Your task to perform on an android device: open app "HBO Max: Stream TV & Movies" (install if not already installed) Image 0: 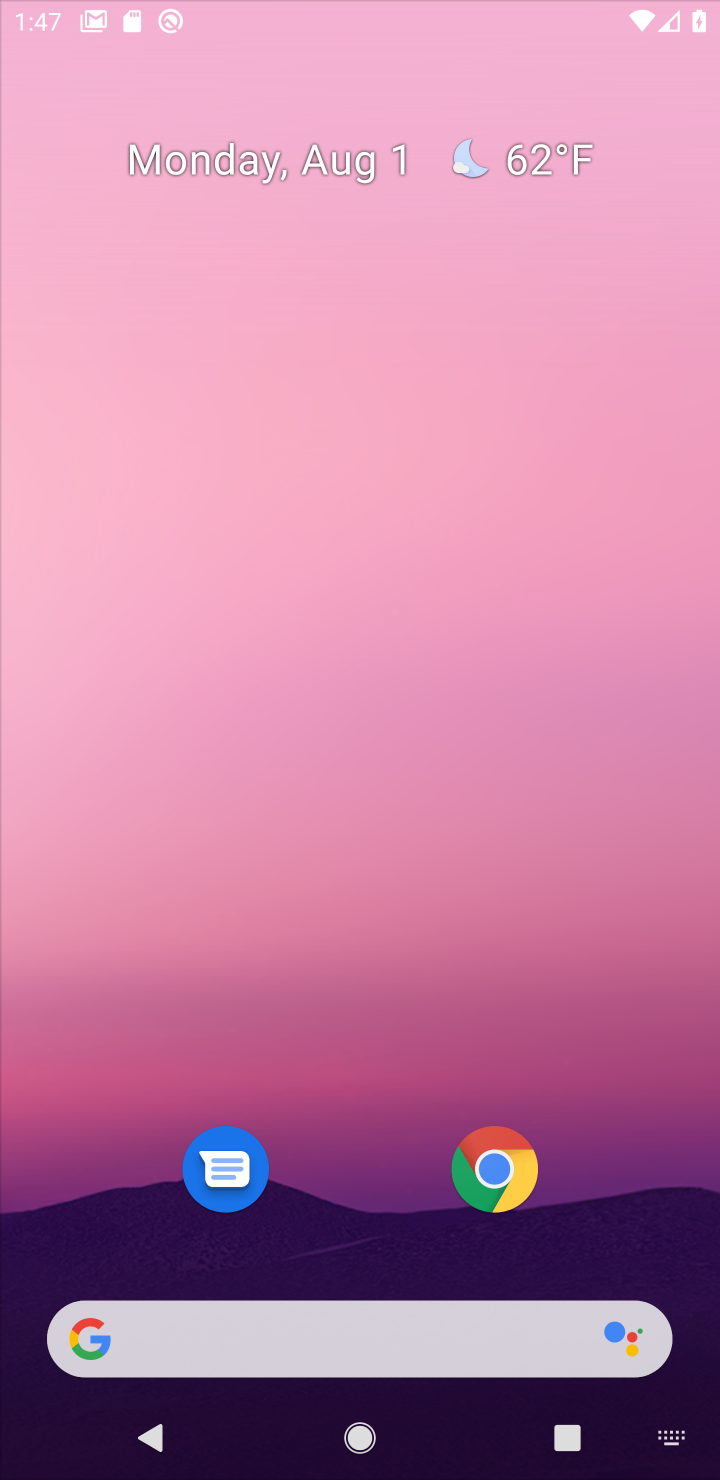
Step 0: press home button
Your task to perform on an android device: open app "HBO Max: Stream TV & Movies" (install if not already installed) Image 1: 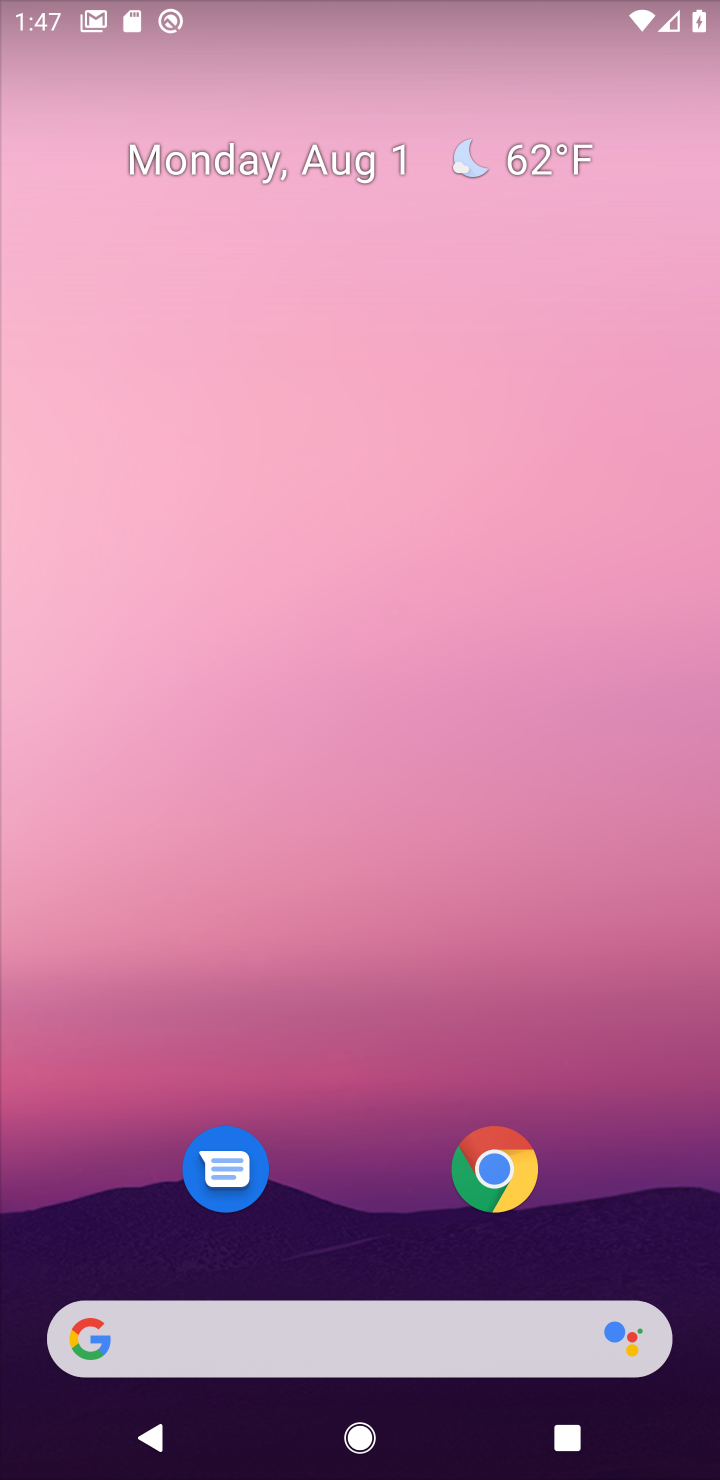
Step 1: drag from (282, 908) to (309, 615)
Your task to perform on an android device: open app "HBO Max: Stream TV & Movies" (install if not already installed) Image 2: 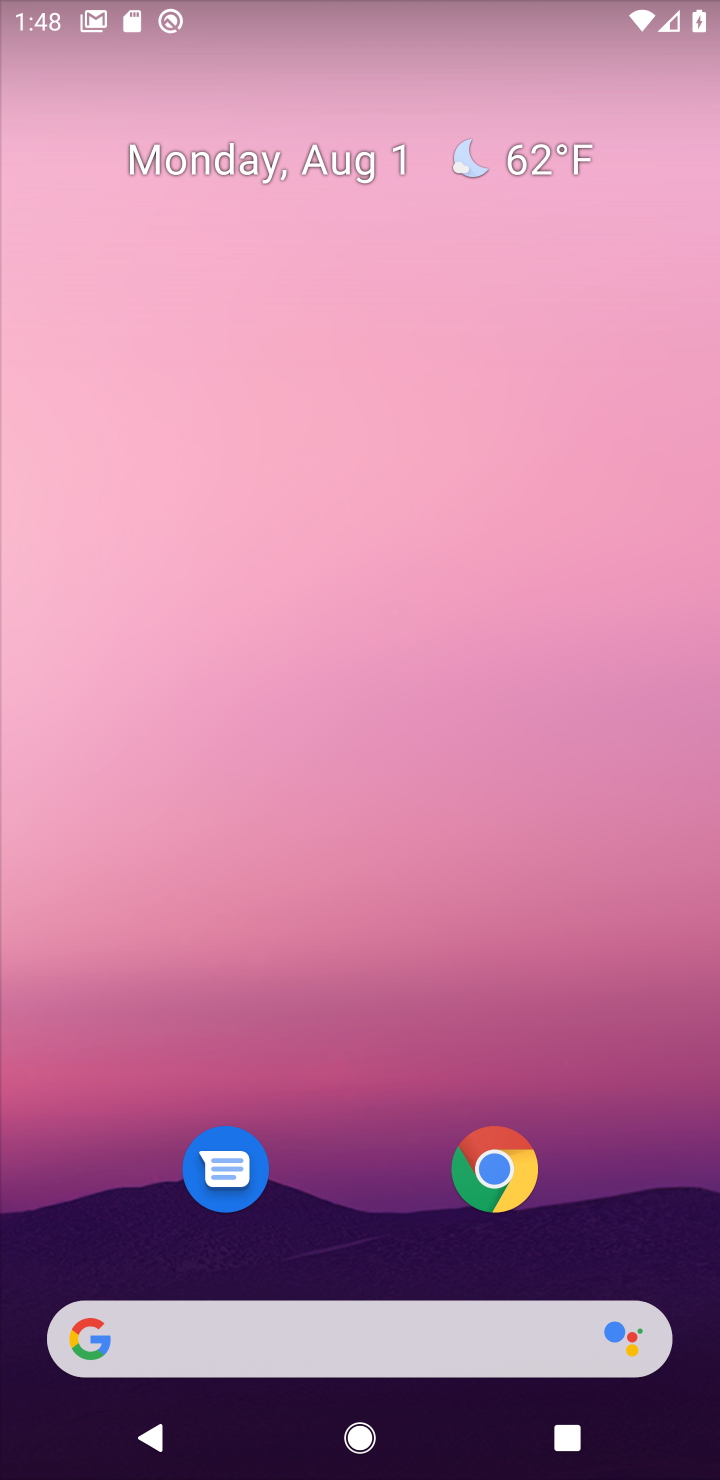
Step 2: drag from (357, 1135) to (360, 393)
Your task to perform on an android device: open app "HBO Max: Stream TV & Movies" (install if not already installed) Image 3: 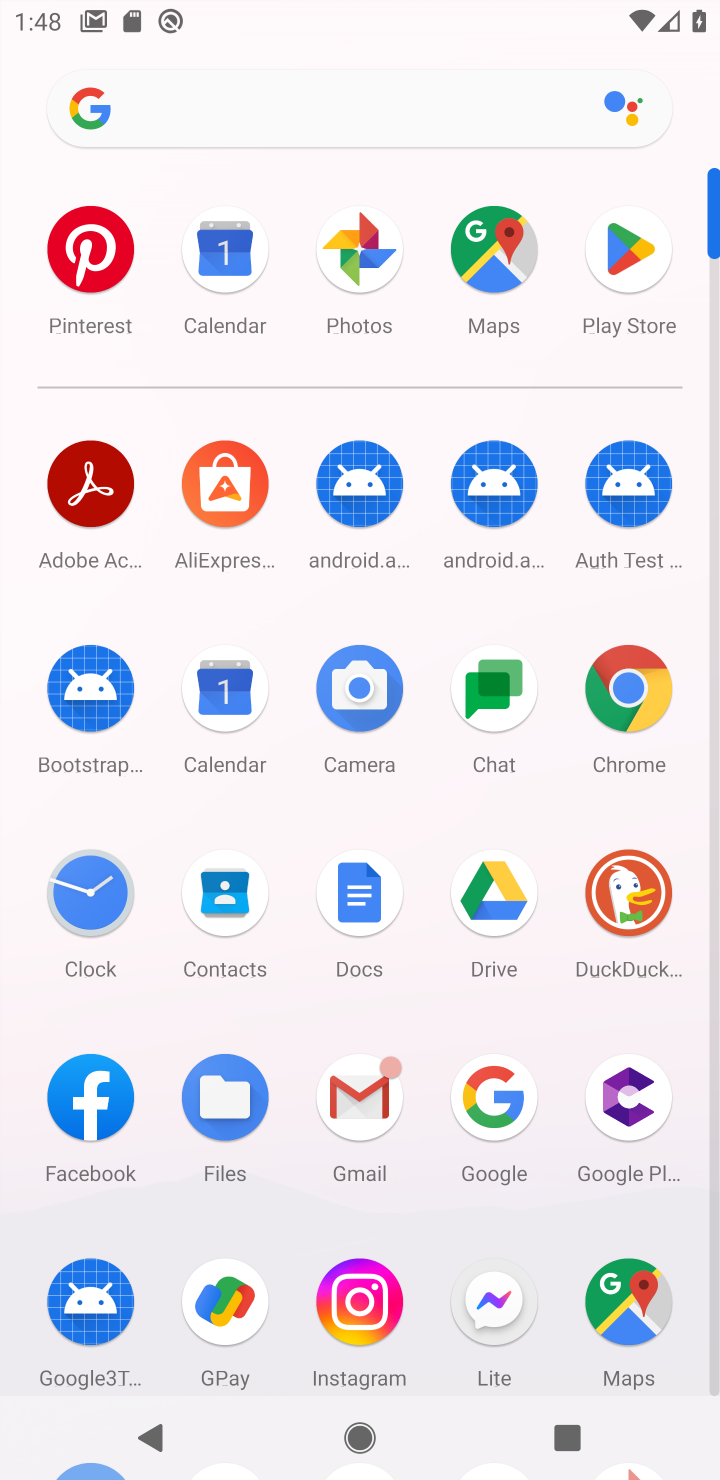
Step 3: click (614, 334)
Your task to perform on an android device: open app "HBO Max: Stream TV & Movies" (install if not already installed) Image 4: 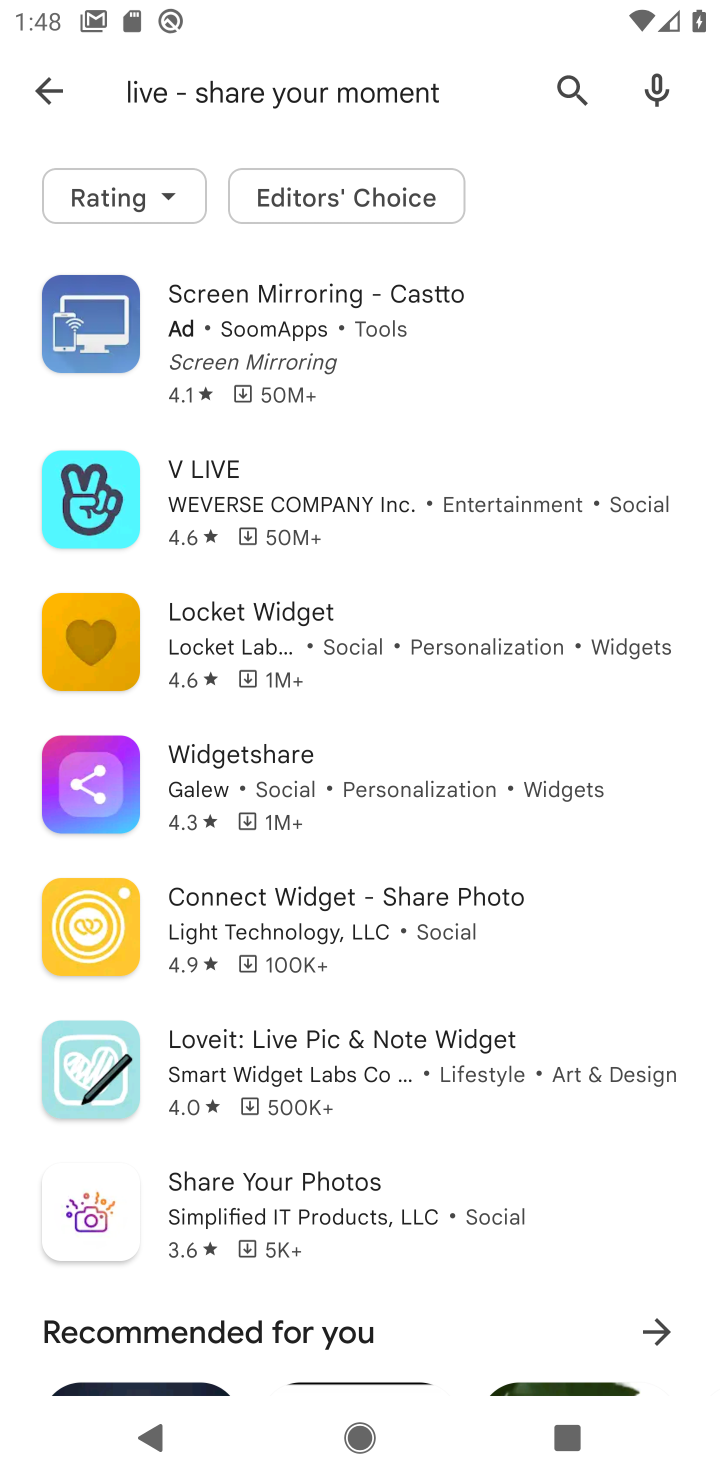
Step 4: click (30, 103)
Your task to perform on an android device: open app "HBO Max: Stream TV & Movies" (install if not already installed) Image 5: 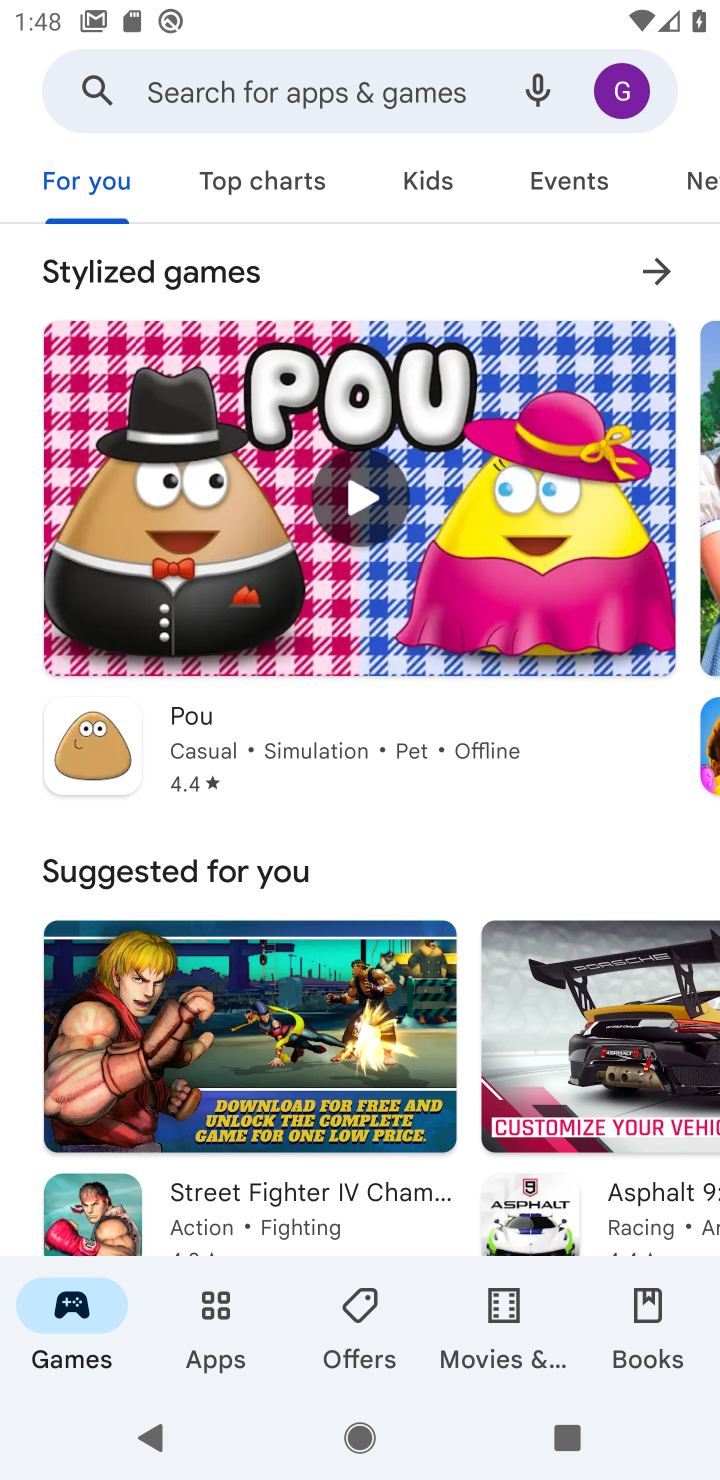
Step 5: click (251, 103)
Your task to perform on an android device: open app "HBO Max: Stream TV & Movies" (install if not already installed) Image 6: 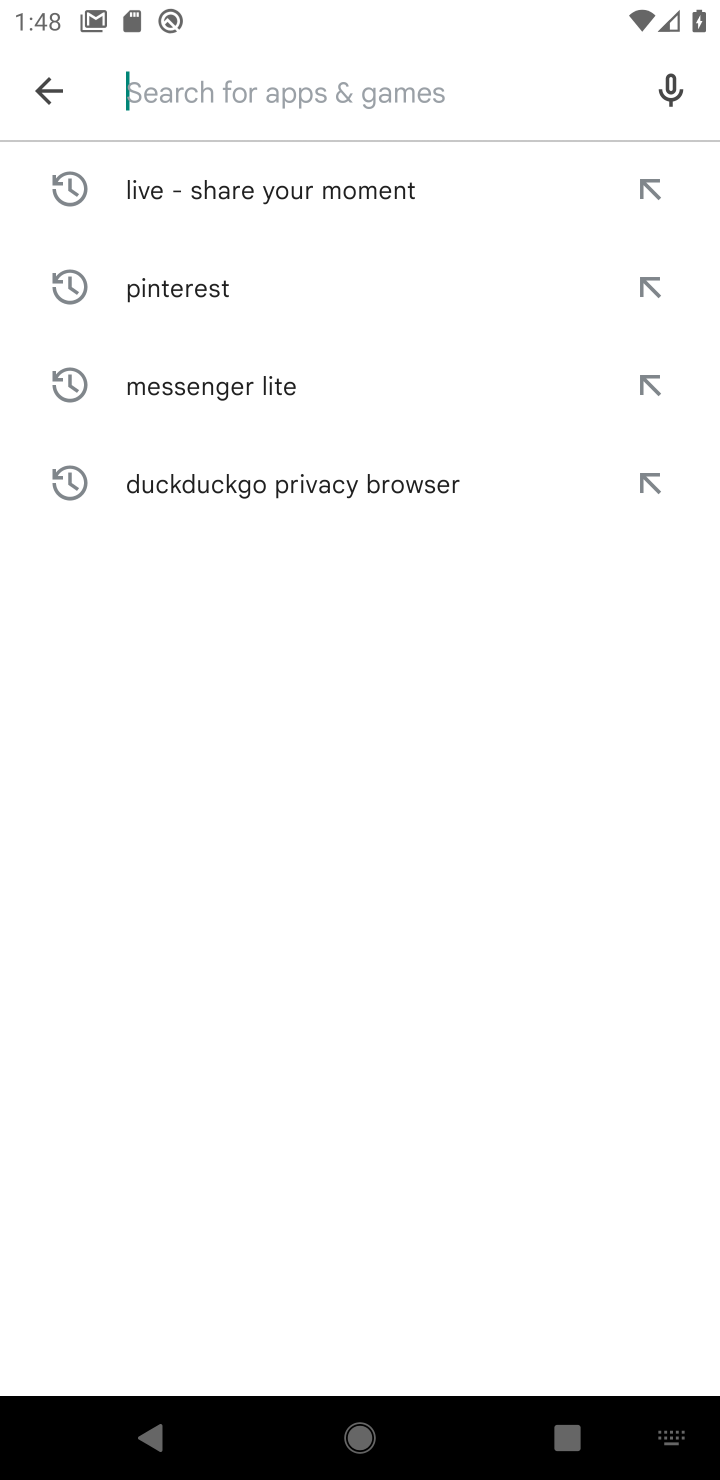
Step 6: type "HBO Max: Stream TV & Movies"
Your task to perform on an android device: open app "HBO Max: Stream TV & Movies" (install if not already installed) Image 7: 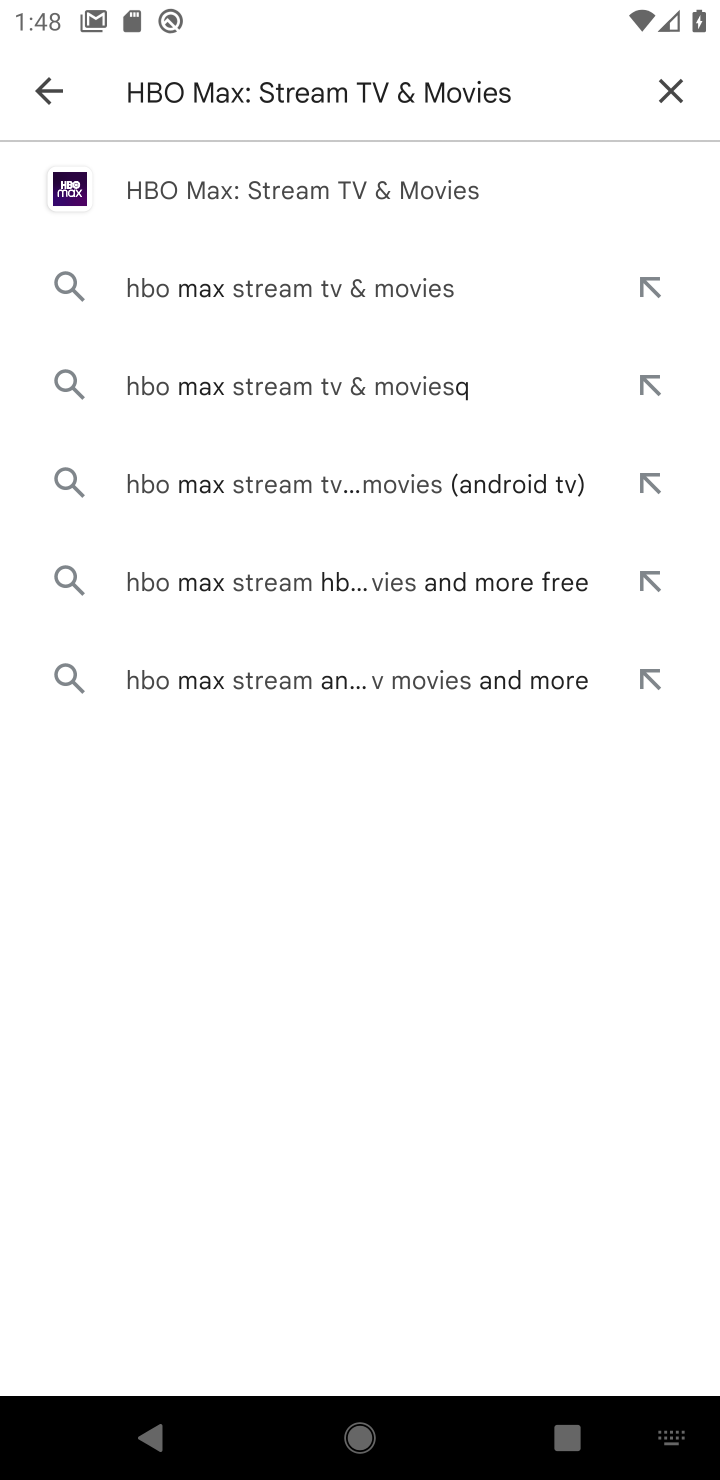
Step 7: click (313, 188)
Your task to perform on an android device: open app "HBO Max: Stream TV & Movies" (install if not already installed) Image 8: 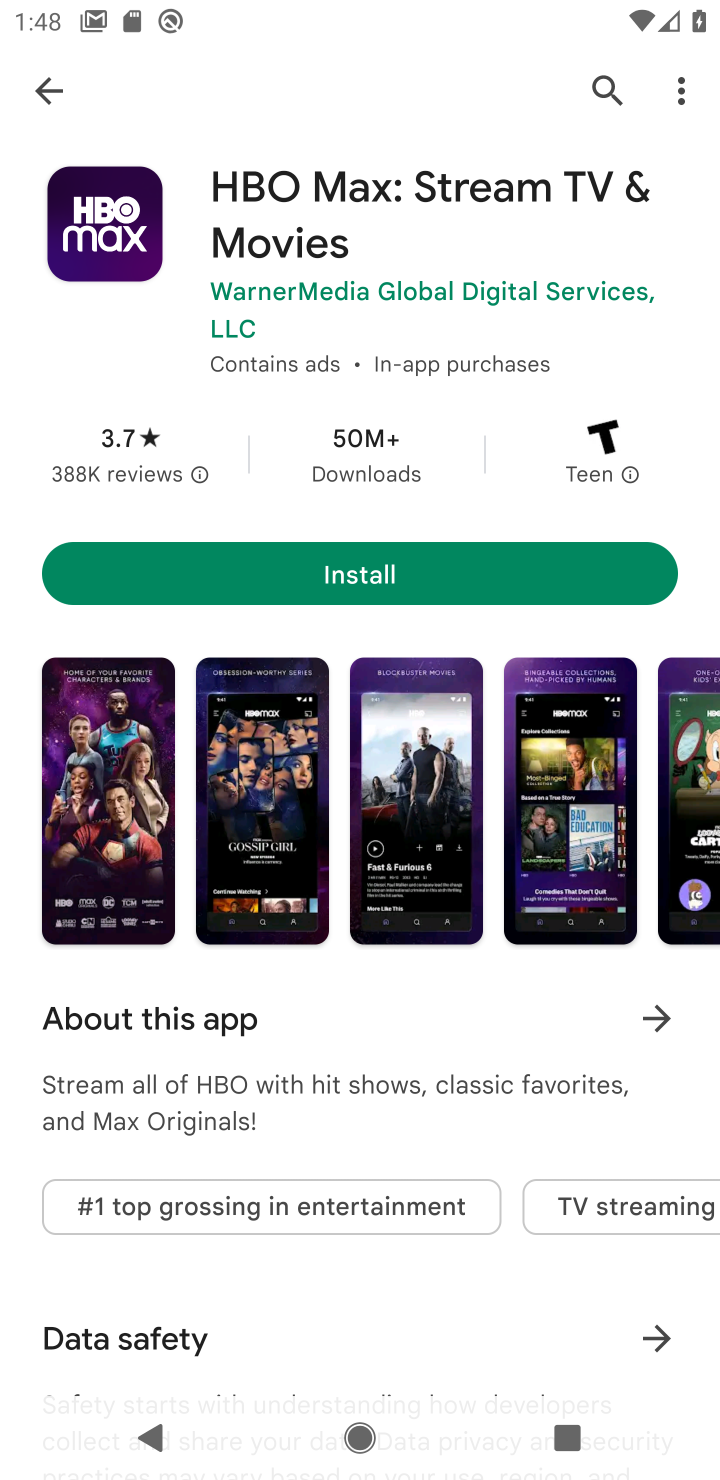
Step 8: click (382, 575)
Your task to perform on an android device: open app "HBO Max: Stream TV & Movies" (install if not already installed) Image 9: 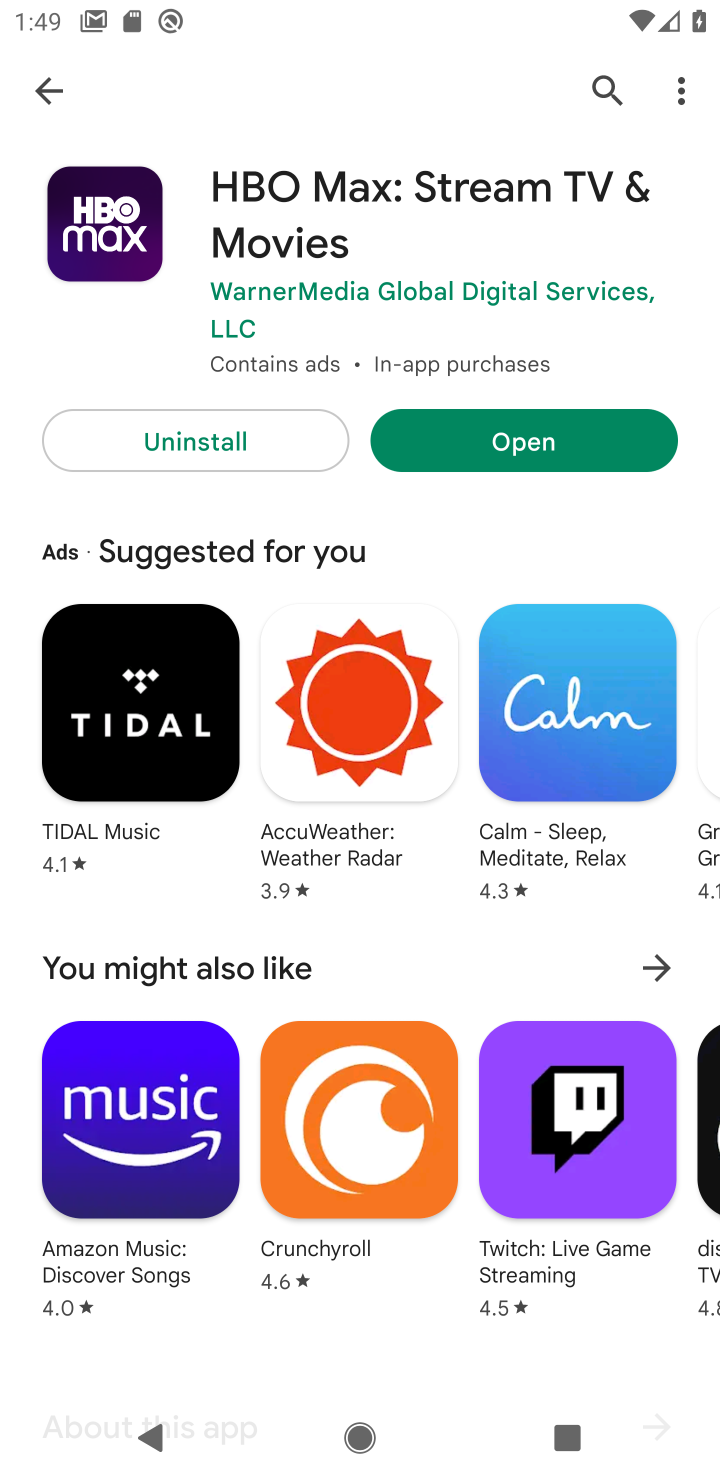
Step 9: click (503, 456)
Your task to perform on an android device: open app "HBO Max: Stream TV & Movies" (install if not already installed) Image 10: 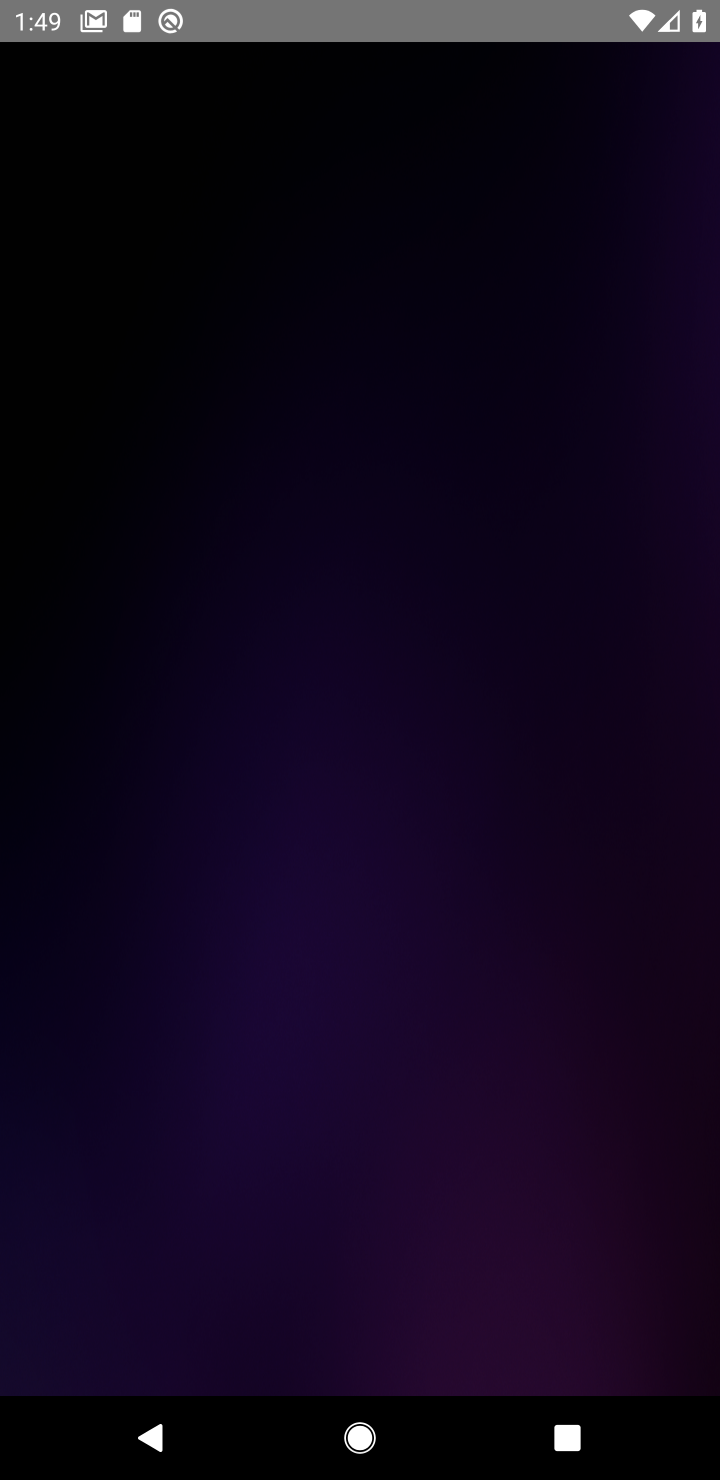
Step 10: task complete